Your task to perform on an android device: open chrome and create a bookmark for the current page Image 0: 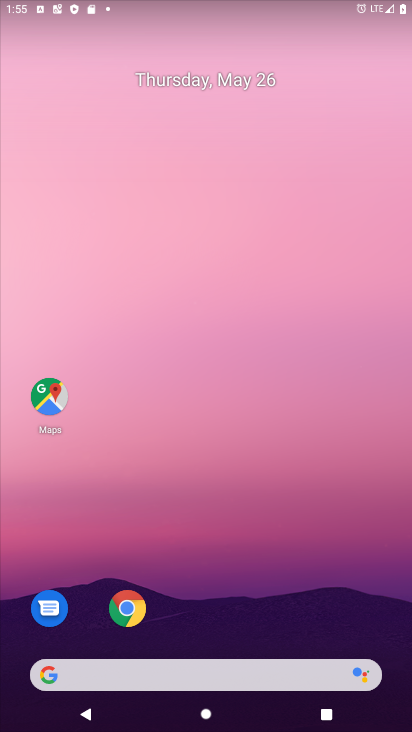
Step 0: click (124, 608)
Your task to perform on an android device: open chrome and create a bookmark for the current page Image 1: 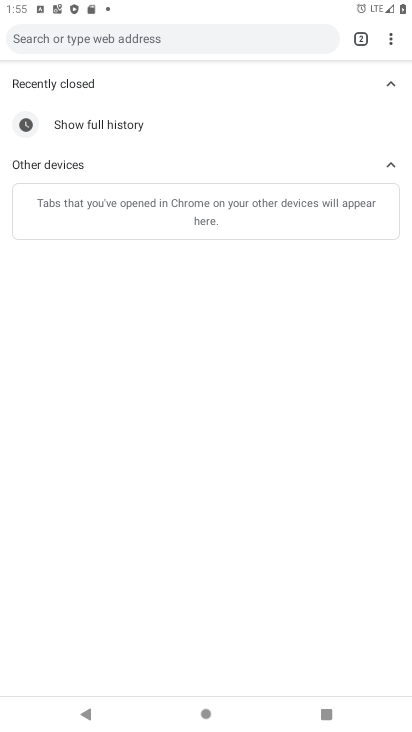
Step 1: click (388, 43)
Your task to perform on an android device: open chrome and create a bookmark for the current page Image 2: 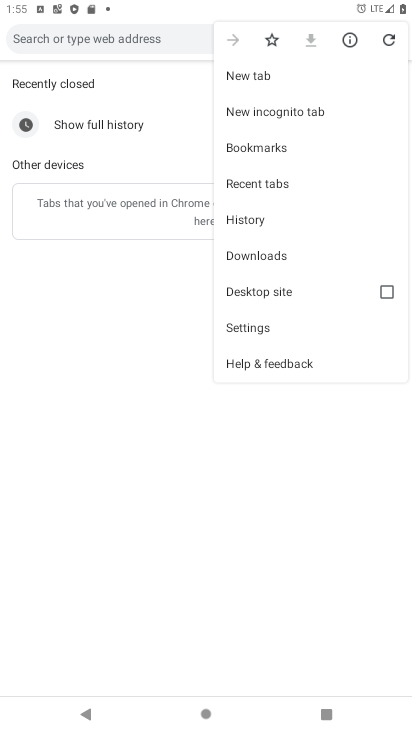
Step 2: click (273, 40)
Your task to perform on an android device: open chrome and create a bookmark for the current page Image 3: 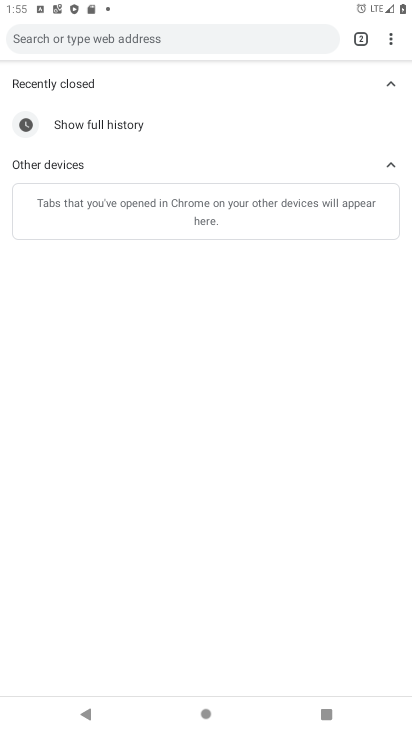
Step 3: task complete